Your task to perform on an android device: Do I have any events tomorrow? Image 0: 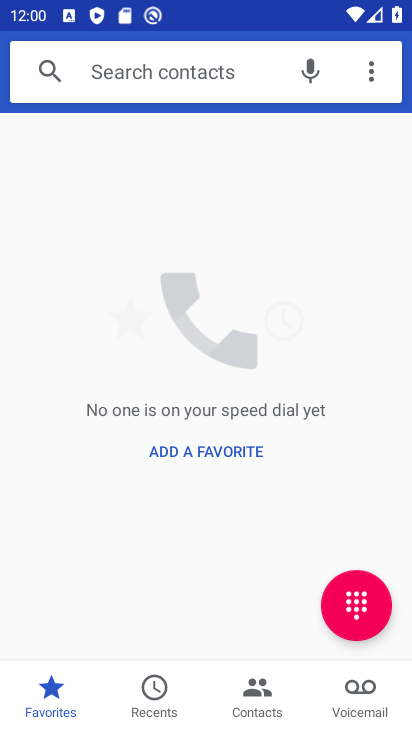
Step 0: press home button
Your task to perform on an android device: Do I have any events tomorrow? Image 1: 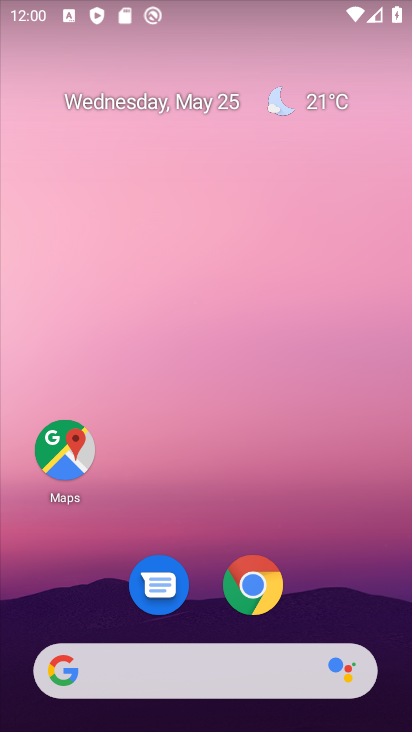
Step 1: drag from (206, 504) to (235, 35)
Your task to perform on an android device: Do I have any events tomorrow? Image 2: 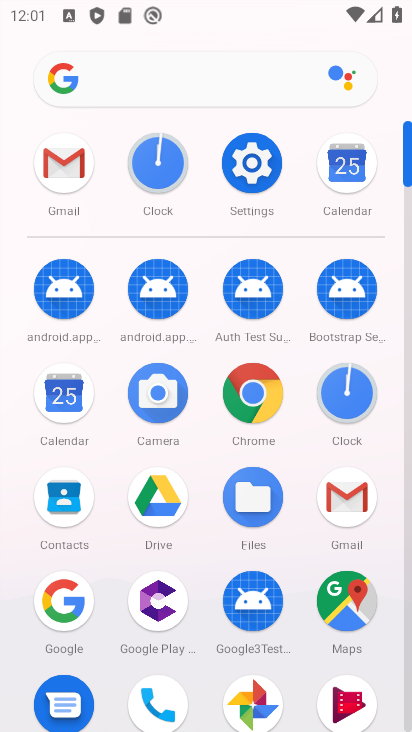
Step 2: click (70, 395)
Your task to perform on an android device: Do I have any events tomorrow? Image 3: 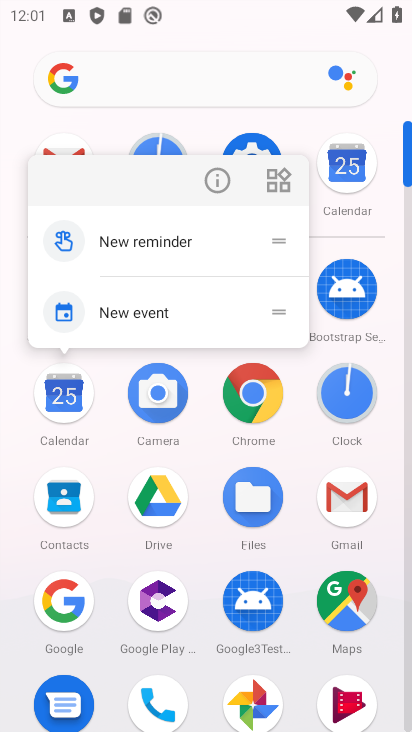
Step 3: click (70, 395)
Your task to perform on an android device: Do I have any events tomorrow? Image 4: 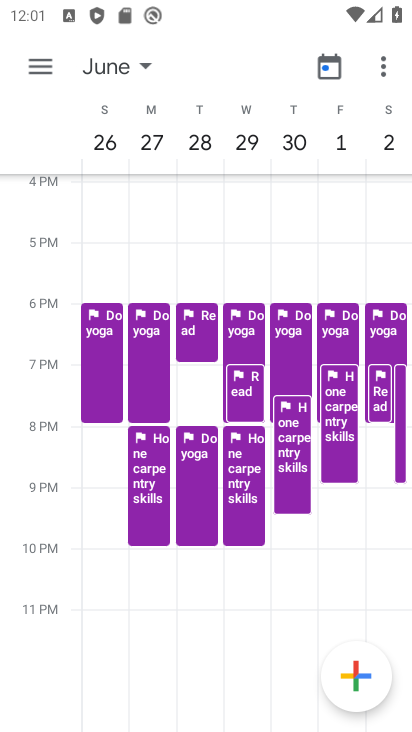
Step 4: drag from (119, 239) to (386, 255)
Your task to perform on an android device: Do I have any events tomorrow? Image 5: 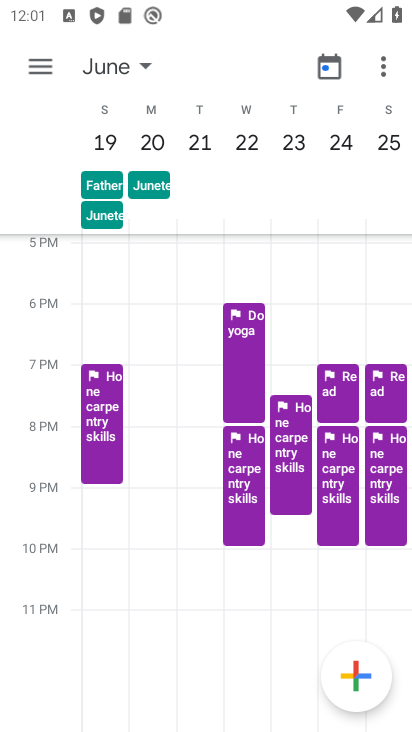
Step 5: drag from (104, 275) to (386, 268)
Your task to perform on an android device: Do I have any events tomorrow? Image 6: 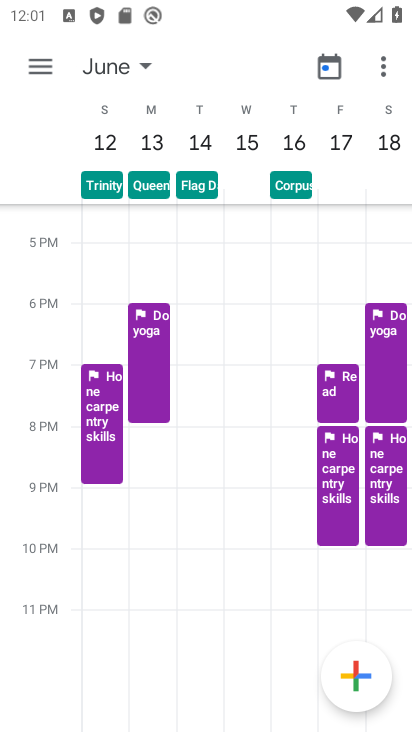
Step 6: drag from (83, 325) to (396, 326)
Your task to perform on an android device: Do I have any events tomorrow? Image 7: 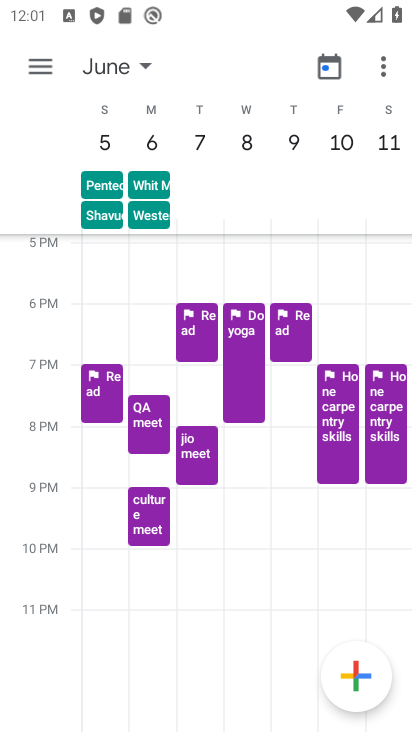
Step 7: drag from (104, 320) to (410, 323)
Your task to perform on an android device: Do I have any events tomorrow? Image 8: 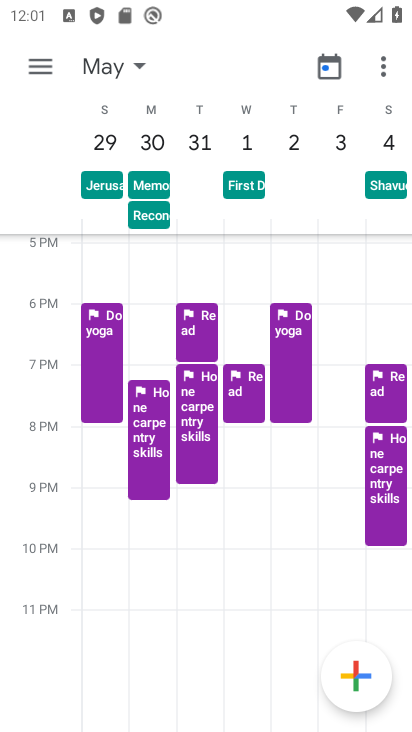
Step 8: drag from (119, 318) to (388, 349)
Your task to perform on an android device: Do I have any events tomorrow? Image 9: 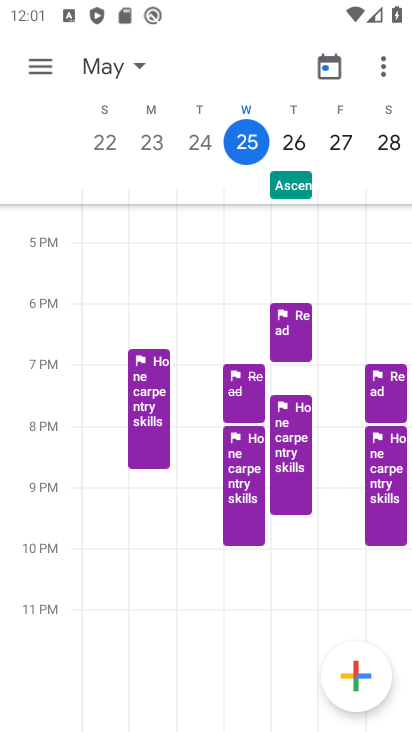
Step 9: click (237, 132)
Your task to perform on an android device: Do I have any events tomorrow? Image 10: 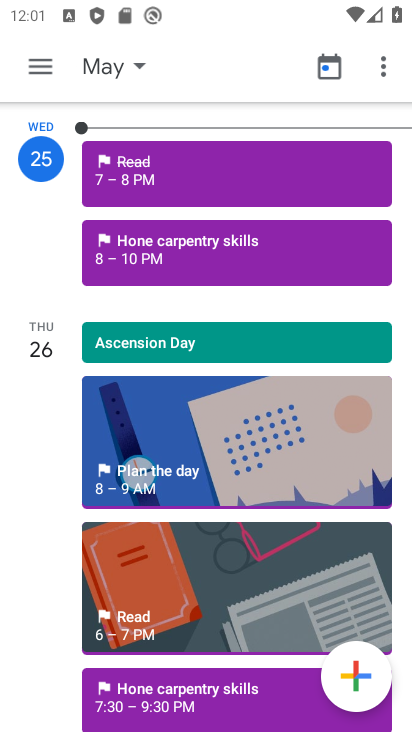
Step 10: task complete